Your task to perform on an android device: install app "Truecaller" Image 0: 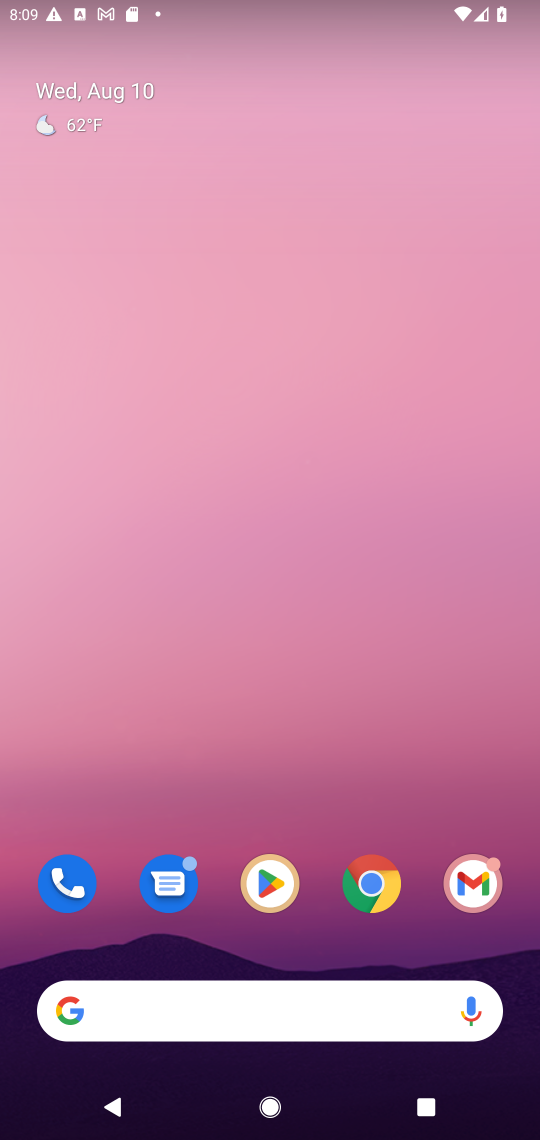
Step 0: click (270, 863)
Your task to perform on an android device: install app "Truecaller" Image 1: 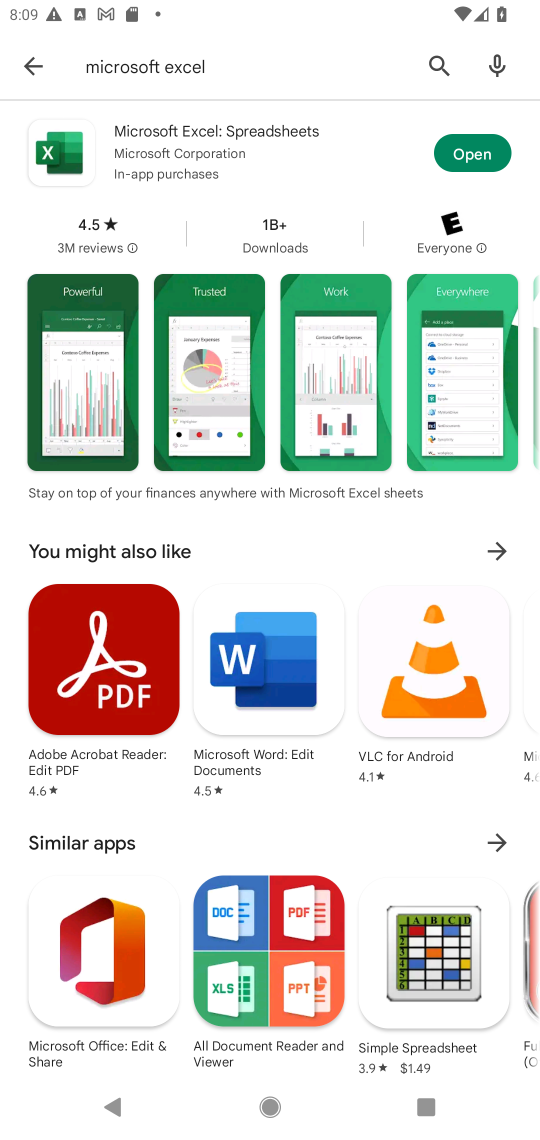
Step 1: click (431, 68)
Your task to perform on an android device: install app "Truecaller" Image 2: 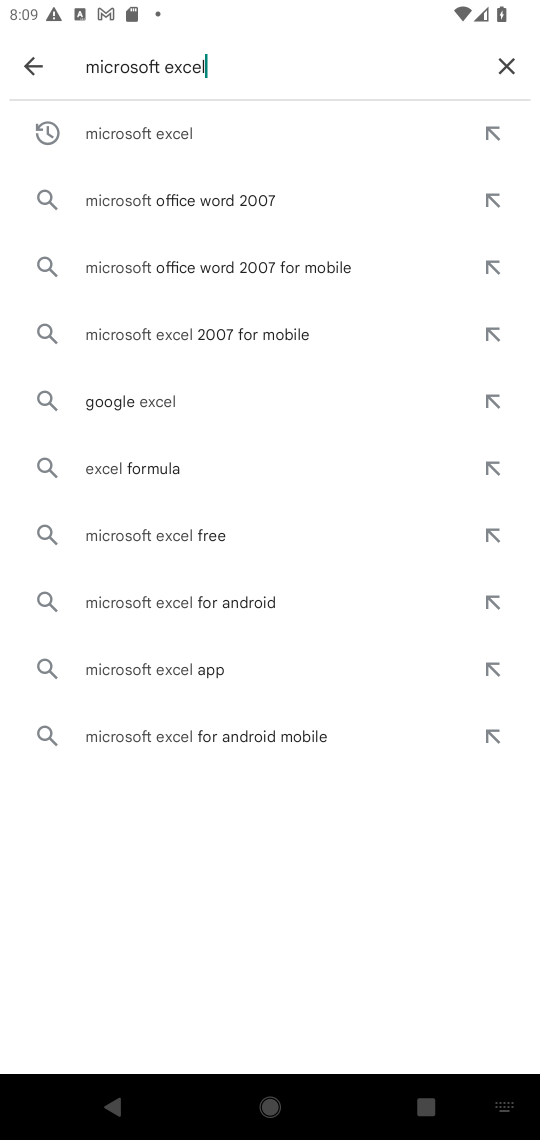
Step 2: click (496, 66)
Your task to perform on an android device: install app "Truecaller" Image 3: 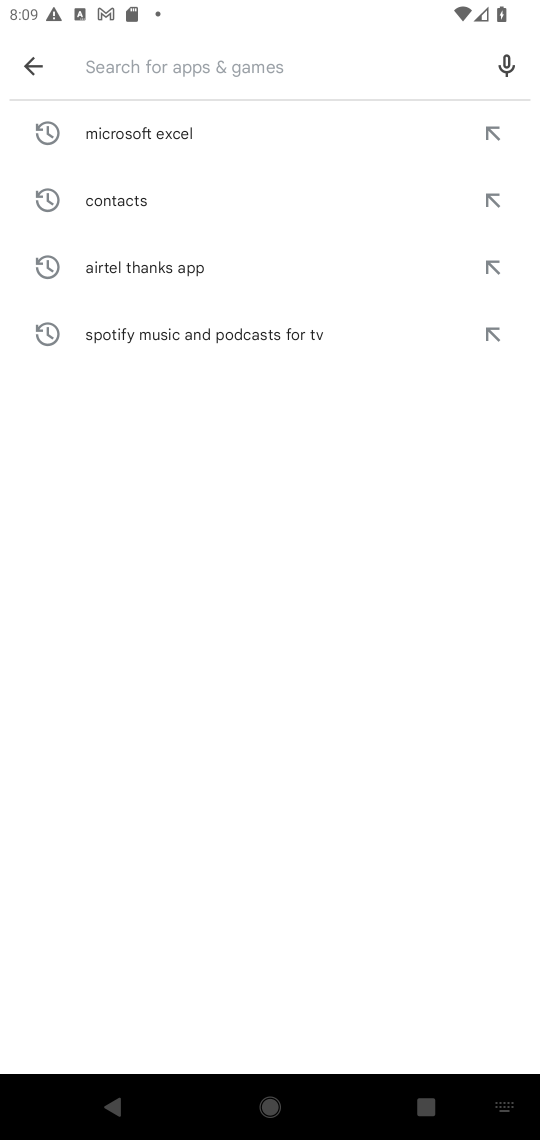
Step 3: type "Truecaller"
Your task to perform on an android device: install app "Truecaller" Image 4: 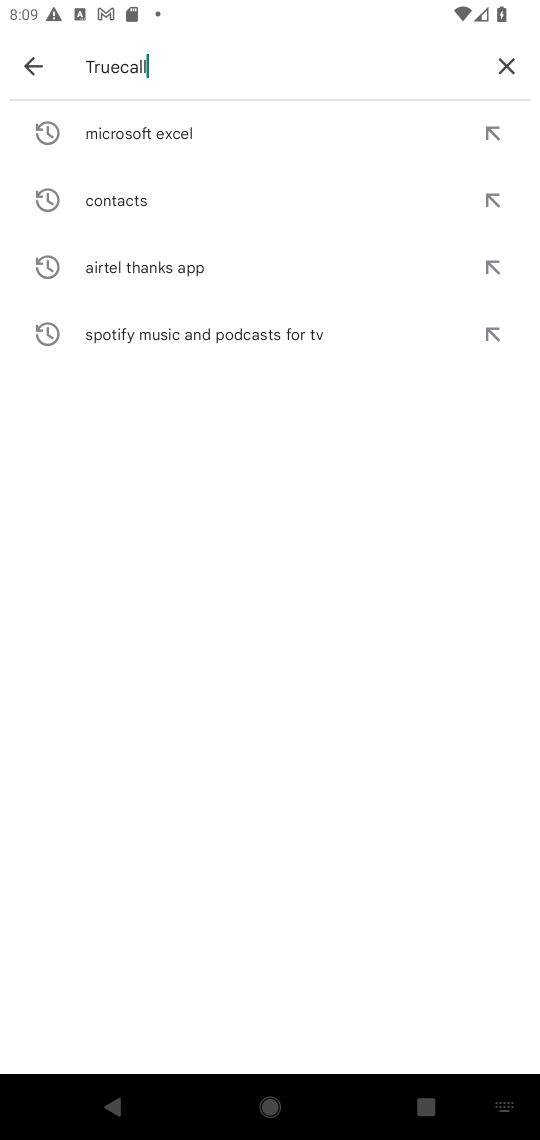
Step 4: type ""
Your task to perform on an android device: install app "Truecaller" Image 5: 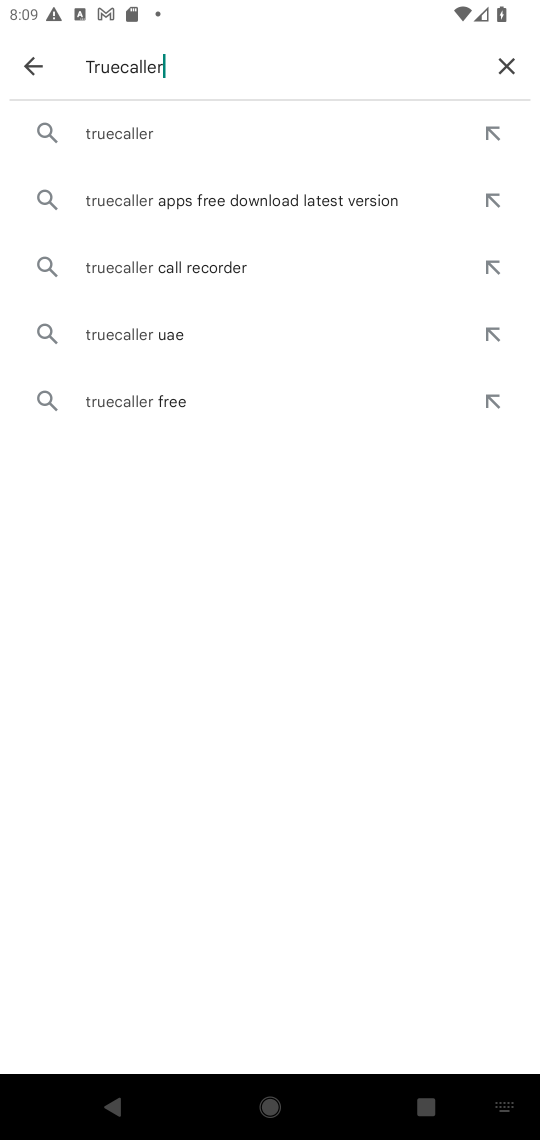
Step 5: click (181, 130)
Your task to perform on an android device: install app "Truecaller" Image 6: 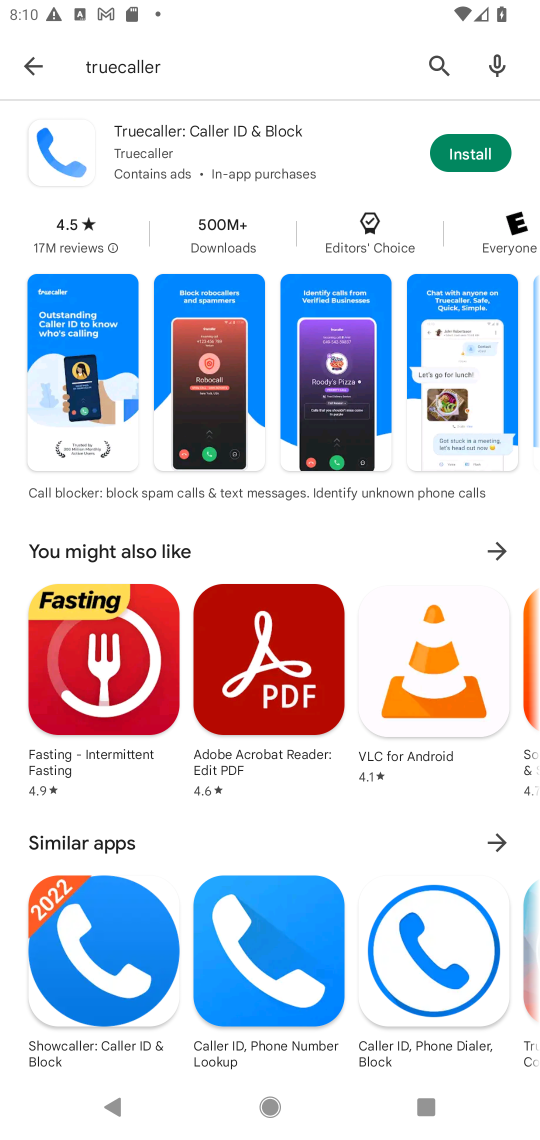
Step 6: click (472, 144)
Your task to perform on an android device: install app "Truecaller" Image 7: 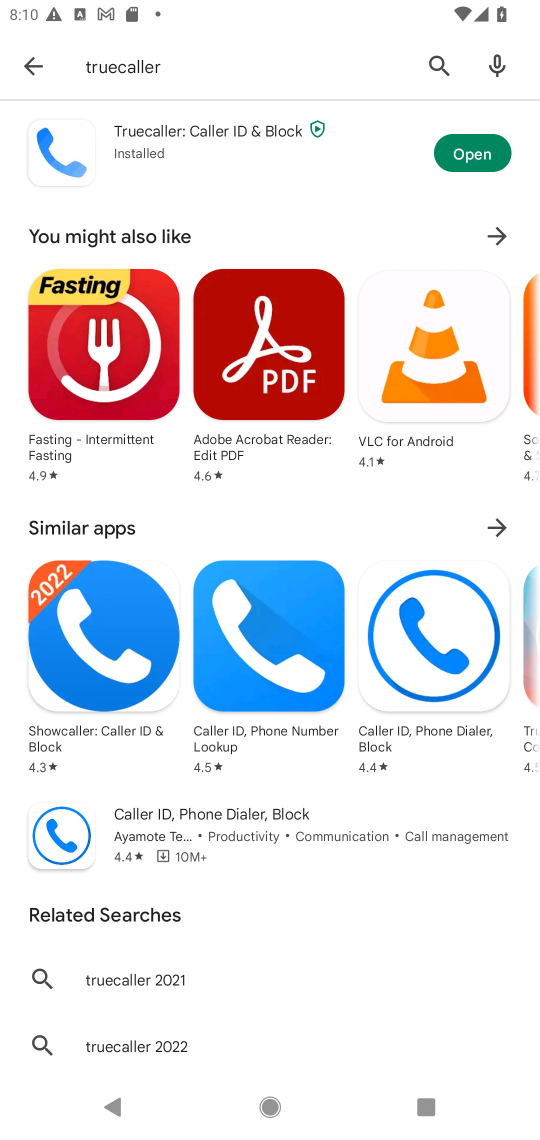
Step 7: task complete